Your task to perform on an android device: Go to Google Image 0: 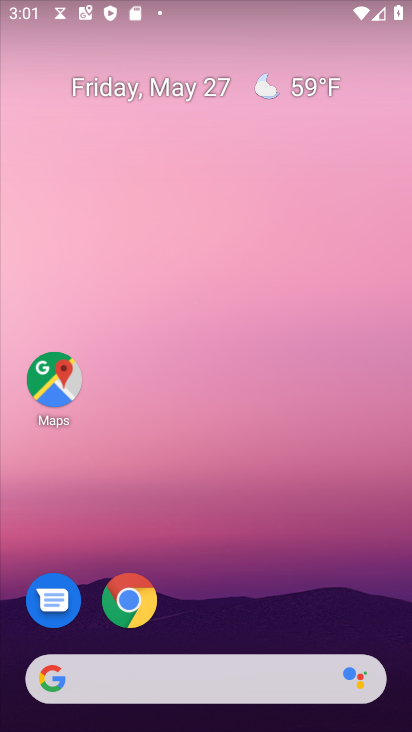
Step 0: drag from (261, 626) to (147, 145)
Your task to perform on an android device: Go to Google Image 1: 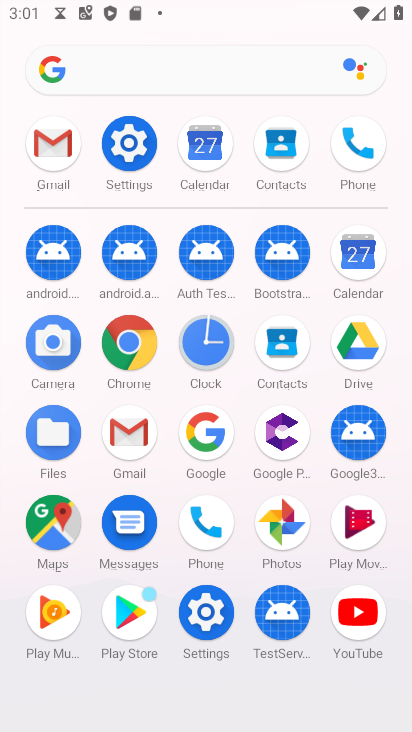
Step 1: click (202, 432)
Your task to perform on an android device: Go to Google Image 2: 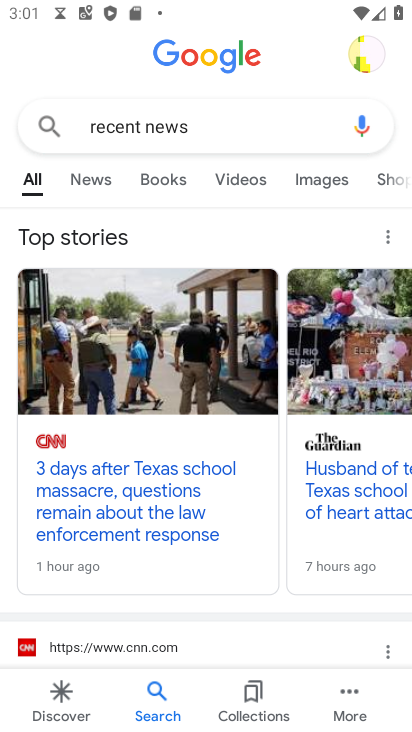
Step 2: task complete